Your task to perform on an android device: Open calendar and show me the third week of next month Image 0: 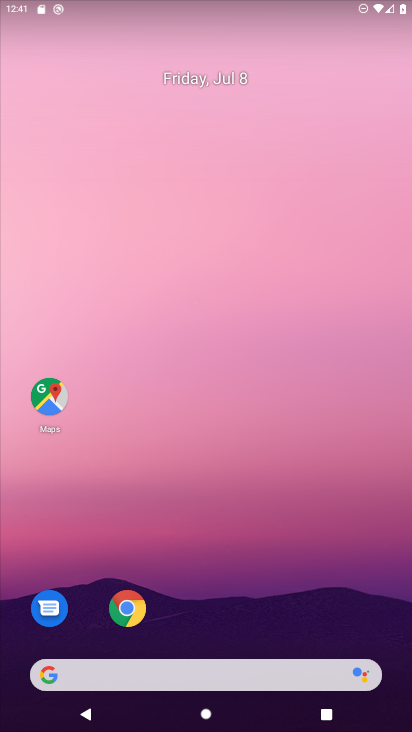
Step 0: drag from (269, 728) to (257, 555)
Your task to perform on an android device: Open calendar and show me the third week of next month Image 1: 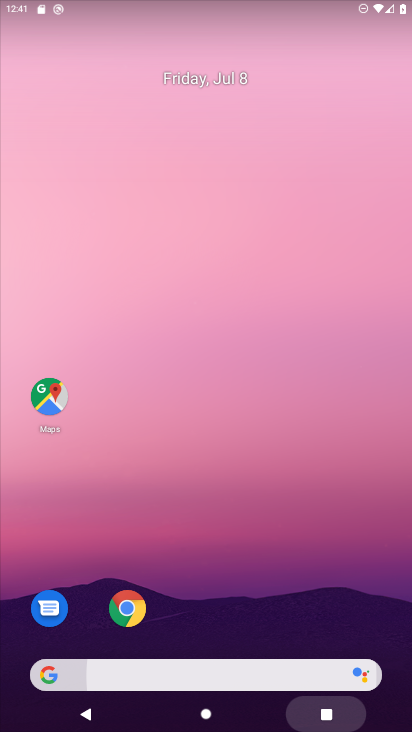
Step 1: drag from (251, 212) to (243, 147)
Your task to perform on an android device: Open calendar and show me the third week of next month Image 2: 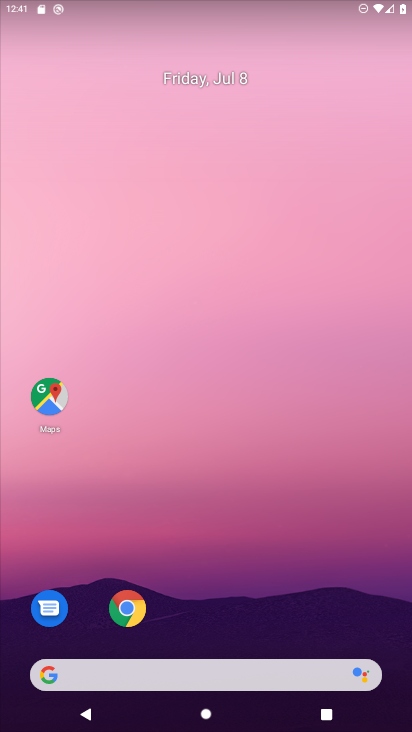
Step 2: drag from (266, 726) to (259, 72)
Your task to perform on an android device: Open calendar and show me the third week of next month Image 3: 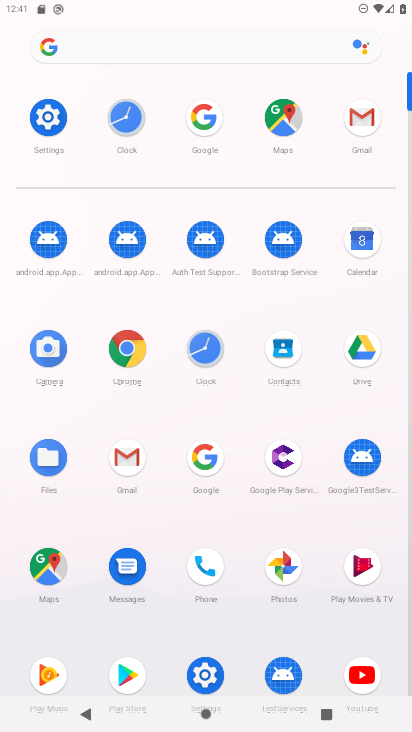
Step 3: click (358, 235)
Your task to perform on an android device: Open calendar and show me the third week of next month Image 4: 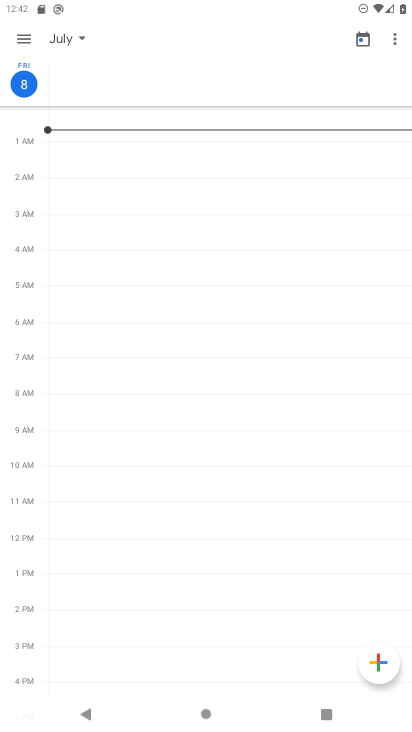
Step 4: click (76, 33)
Your task to perform on an android device: Open calendar and show me the third week of next month Image 5: 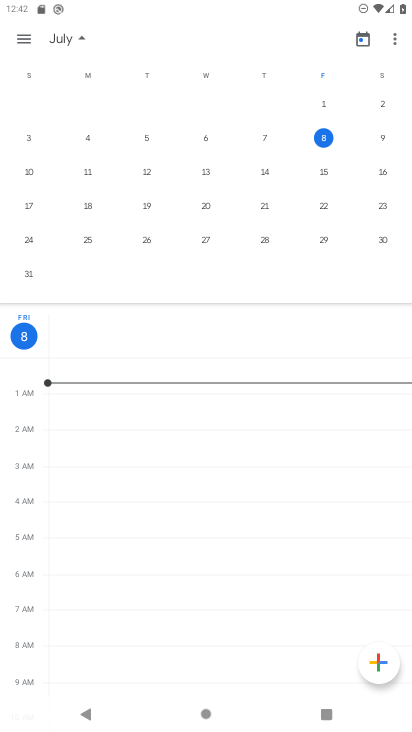
Step 5: drag from (346, 202) to (60, 202)
Your task to perform on an android device: Open calendar and show me the third week of next month Image 6: 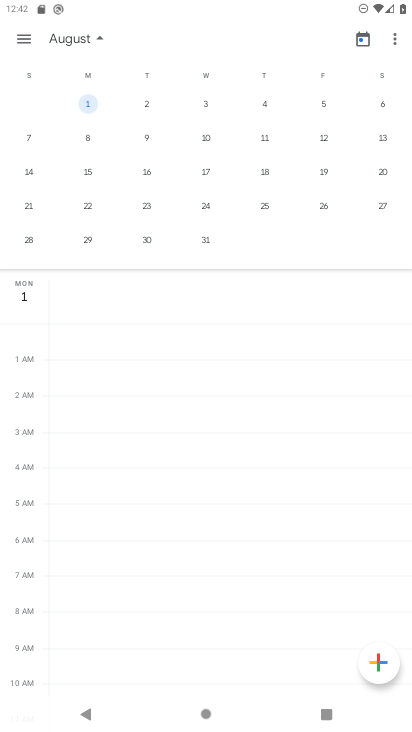
Step 6: click (87, 169)
Your task to perform on an android device: Open calendar and show me the third week of next month Image 7: 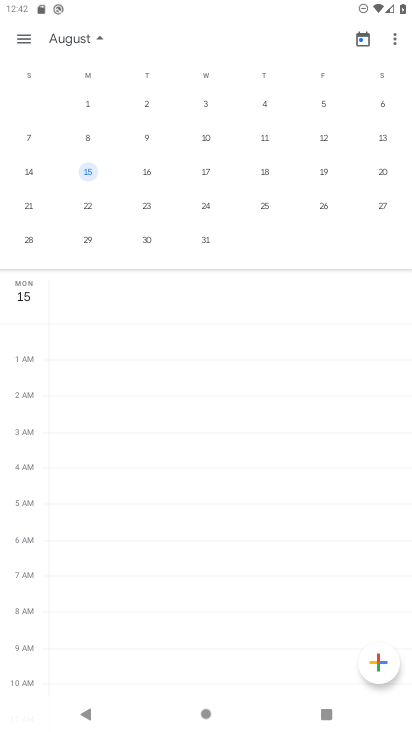
Step 7: click (87, 169)
Your task to perform on an android device: Open calendar and show me the third week of next month Image 8: 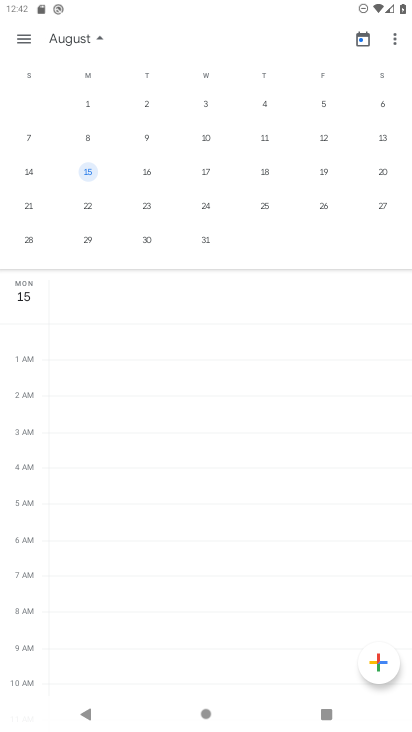
Step 8: click (24, 37)
Your task to perform on an android device: Open calendar and show me the third week of next month Image 9: 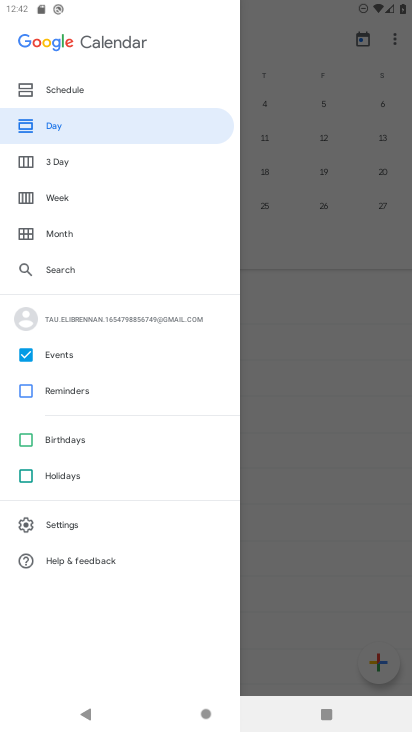
Step 9: click (56, 193)
Your task to perform on an android device: Open calendar and show me the third week of next month Image 10: 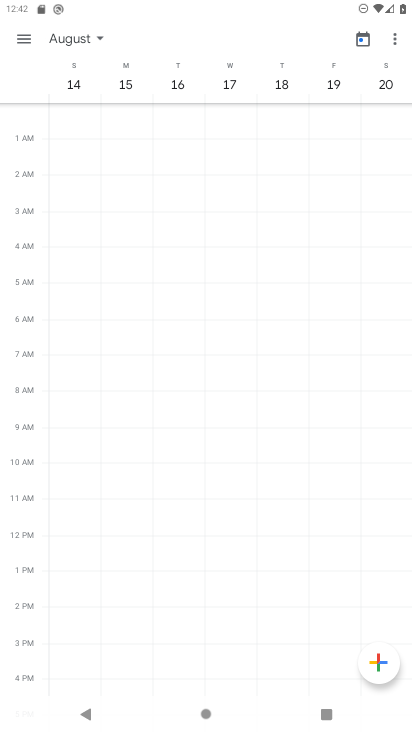
Step 10: task complete